Your task to perform on an android device: toggle priority inbox in the gmail app Image 0: 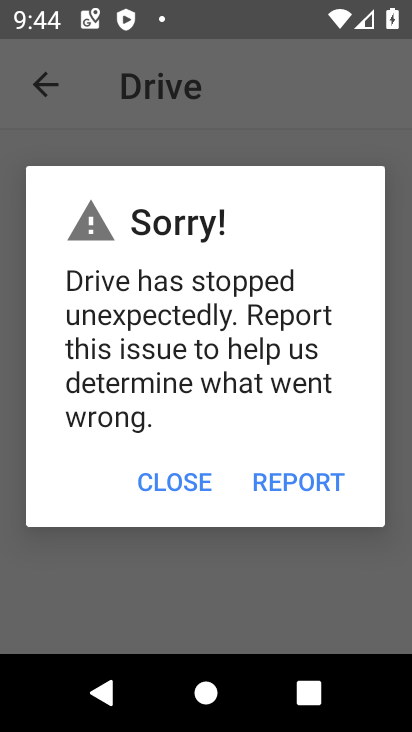
Step 0: press home button
Your task to perform on an android device: toggle priority inbox in the gmail app Image 1: 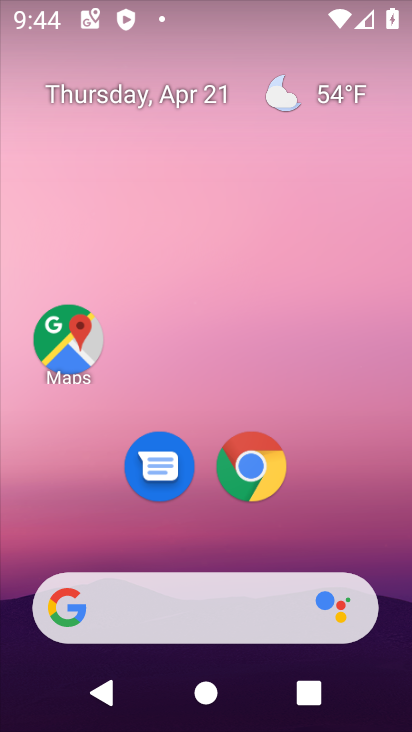
Step 1: drag from (357, 512) to (359, 123)
Your task to perform on an android device: toggle priority inbox in the gmail app Image 2: 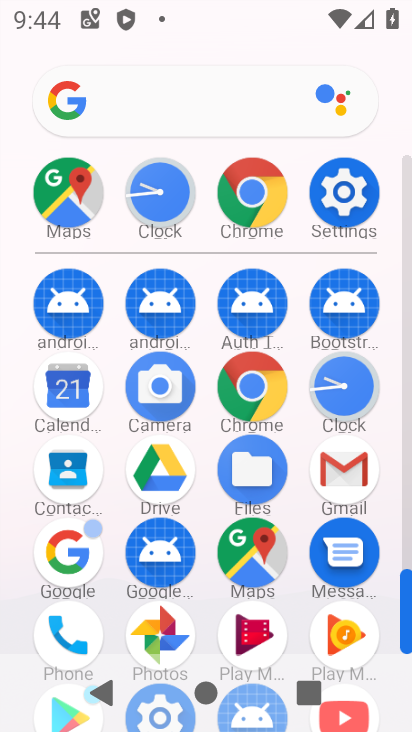
Step 2: click (344, 470)
Your task to perform on an android device: toggle priority inbox in the gmail app Image 3: 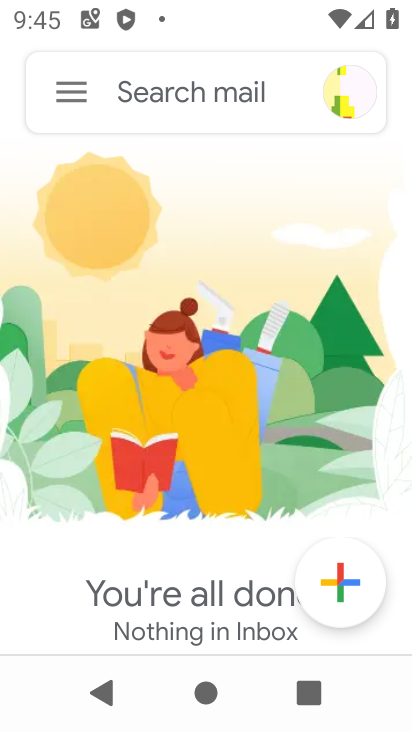
Step 3: click (60, 94)
Your task to perform on an android device: toggle priority inbox in the gmail app Image 4: 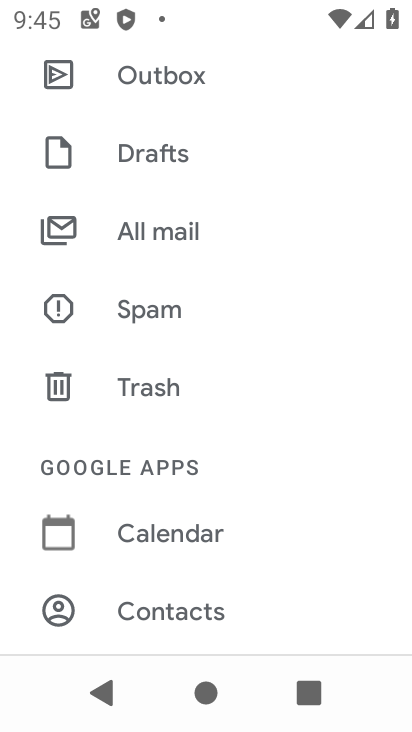
Step 4: drag from (300, 578) to (321, 254)
Your task to perform on an android device: toggle priority inbox in the gmail app Image 5: 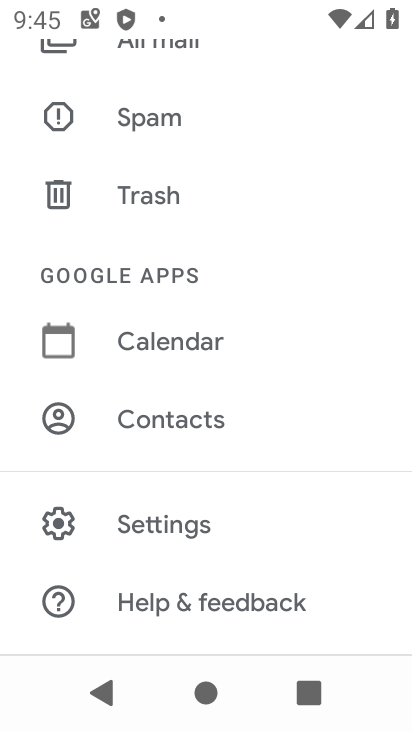
Step 5: click (198, 532)
Your task to perform on an android device: toggle priority inbox in the gmail app Image 6: 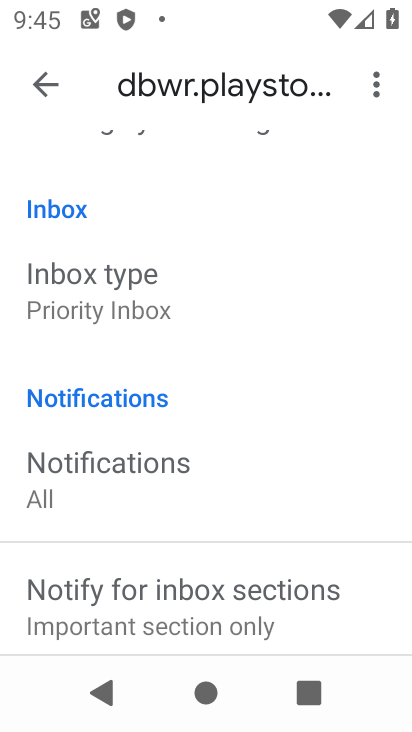
Step 6: click (125, 299)
Your task to perform on an android device: toggle priority inbox in the gmail app Image 7: 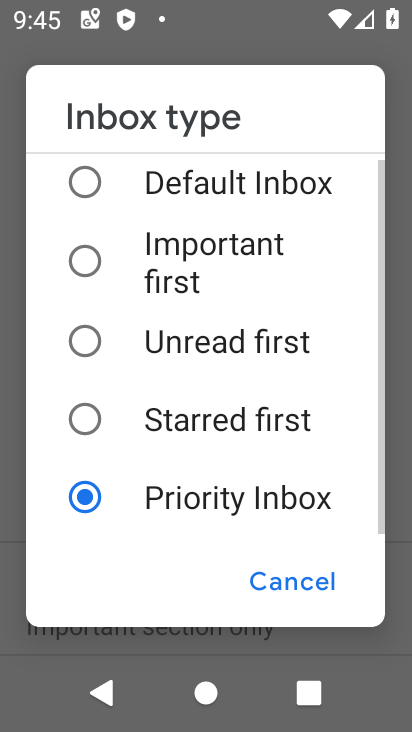
Step 7: click (82, 174)
Your task to perform on an android device: toggle priority inbox in the gmail app Image 8: 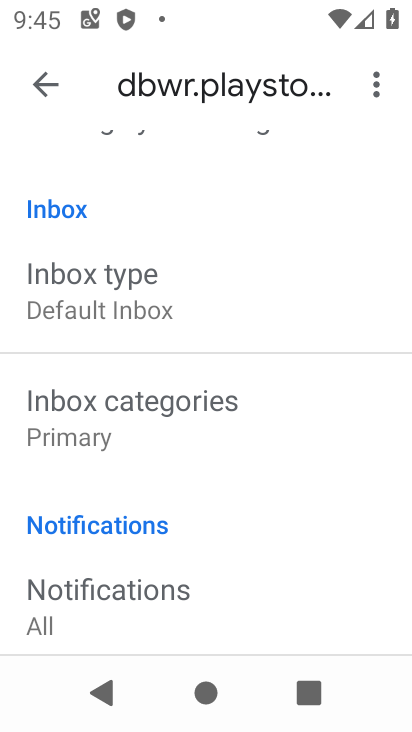
Step 8: task complete